Your task to perform on an android device: check storage Image 0: 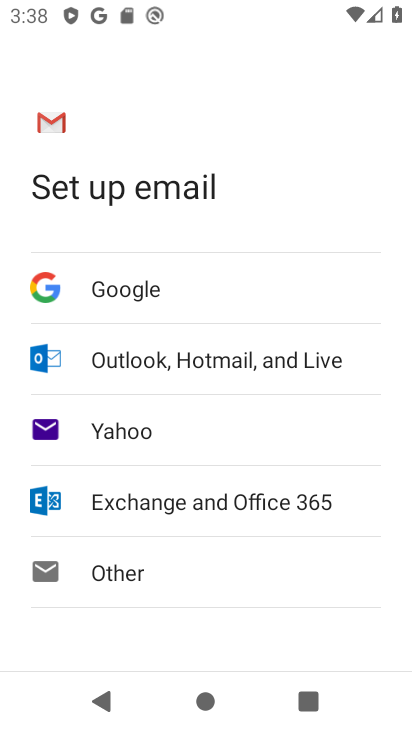
Step 0: press home button
Your task to perform on an android device: check storage Image 1: 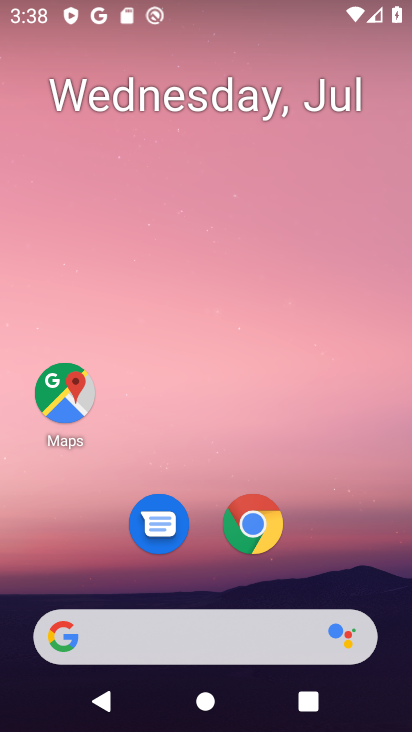
Step 1: drag from (222, 433) to (259, 25)
Your task to perform on an android device: check storage Image 2: 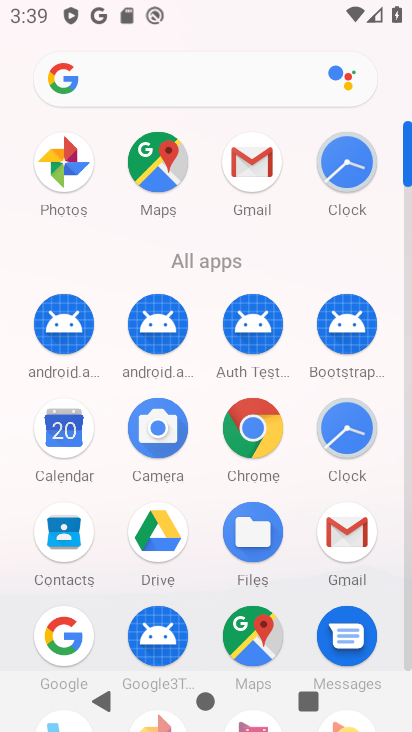
Step 2: drag from (204, 526) to (232, 94)
Your task to perform on an android device: check storage Image 3: 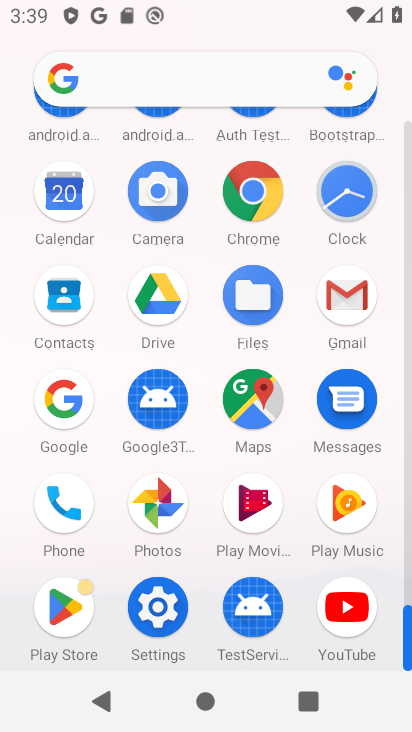
Step 3: click (151, 584)
Your task to perform on an android device: check storage Image 4: 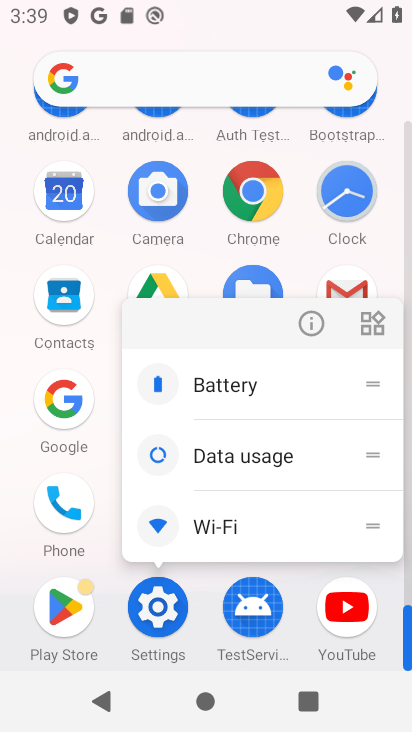
Step 4: click (158, 611)
Your task to perform on an android device: check storage Image 5: 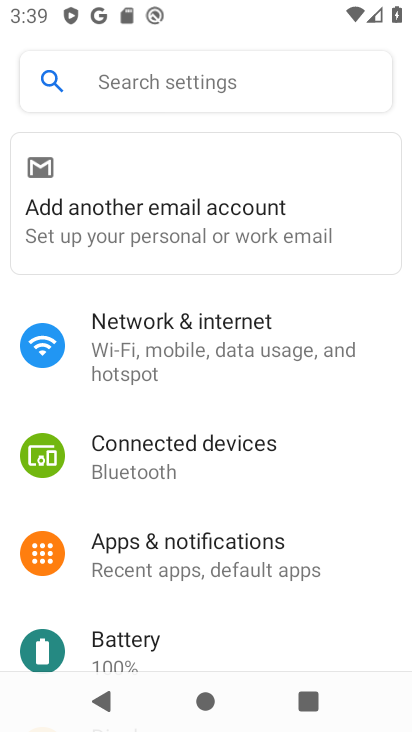
Step 5: drag from (228, 494) to (241, 154)
Your task to perform on an android device: check storage Image 6: 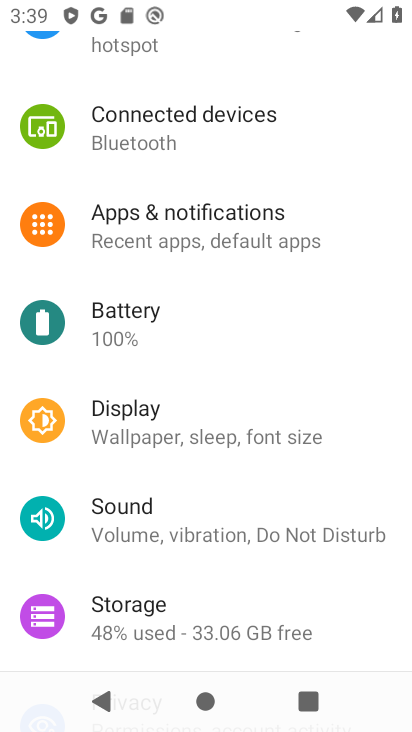
Step 6: drag from (215, 566) to (233, 272)
Your task to perform on an android device: check storage Image 7: 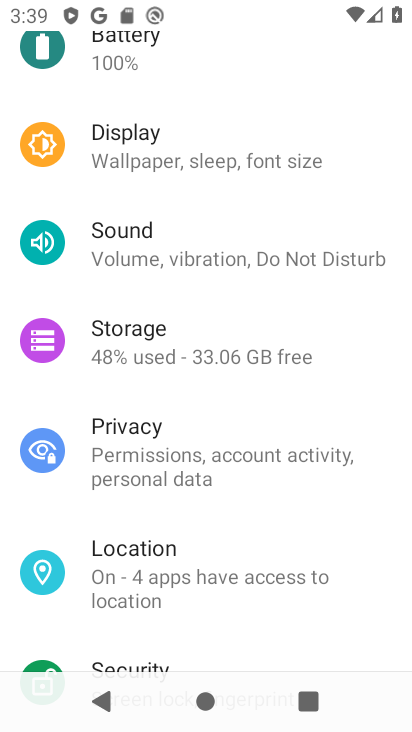
Step 7: click (212, 340)
Your task to perform on an android device: check storage Image 8: 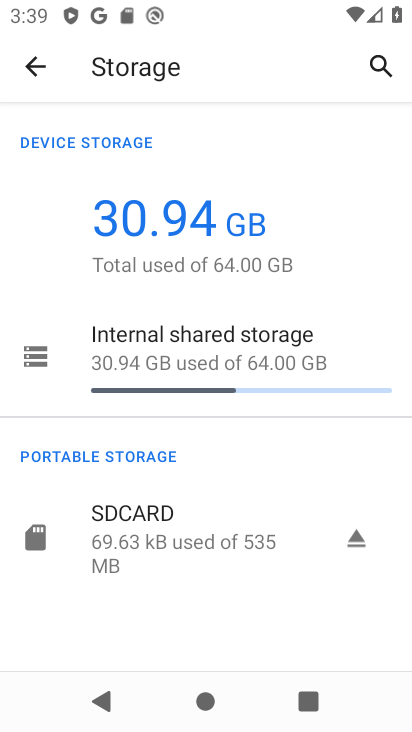
Step 8: task complete